Your task to perform on an android device: Search for sushi restaurants on Maps Image 0: 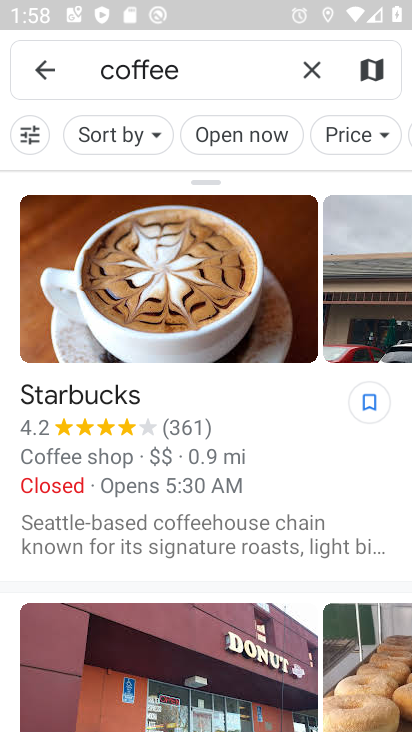
Step 0: drag from (282, 603) to (348, 48)
Your task to perform on an android device: Search for sushi restaurants on Maps Image 1: 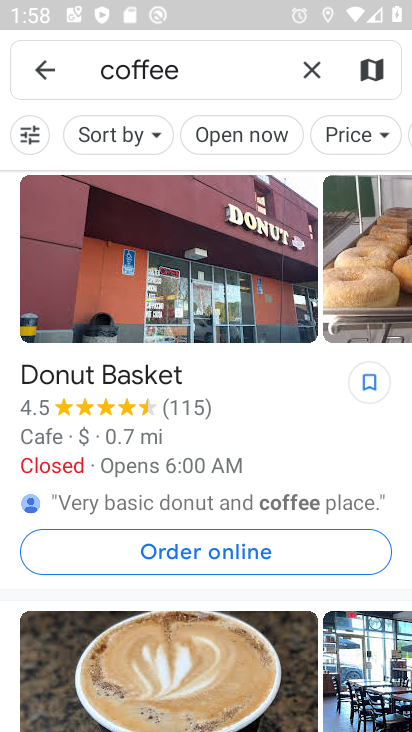
Step 1: click (330, 79)
Your task to perform on an android device: Search for sushi restaurants on Maps Image 2: 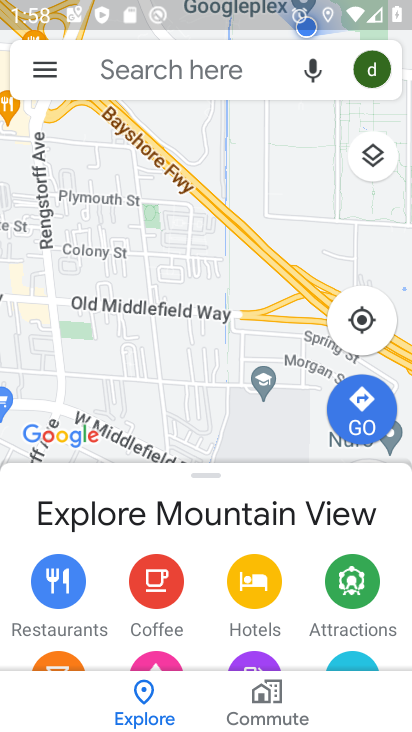
Step 2: drag from (245, 477) to (169, 22)
Your task to perform on an android device: Search for sushi restaurants on Maps Image 3: 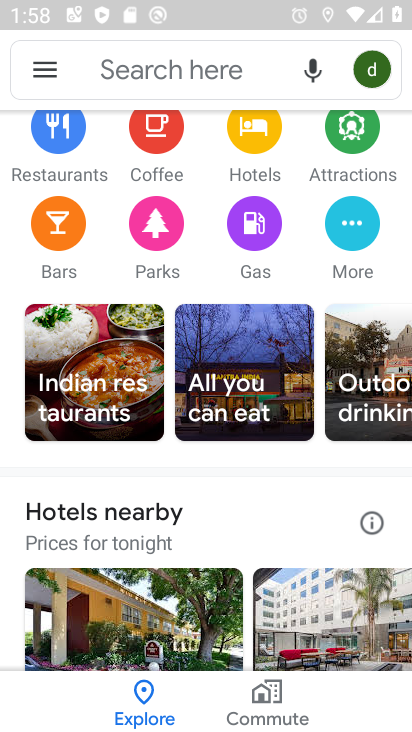
Step 3: click (125, 70)
Your task to perform on an android device: Search for sushi restaurants on Maps Image 4: 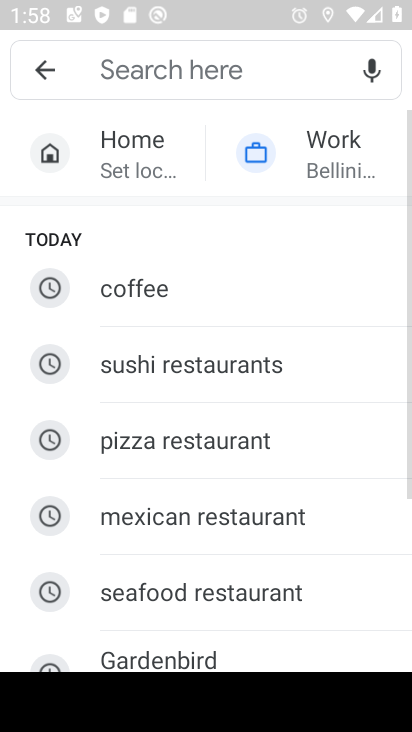
Step 4: click (146, 349)
Your task to perform on an android device: Search for sushi restaurants on Maps Image 5: 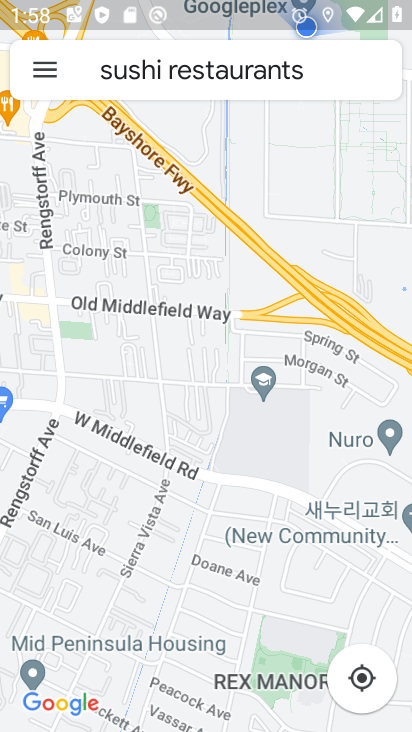
Step 5: task complete